Your task to perform on an android device: check data usage Image 0: 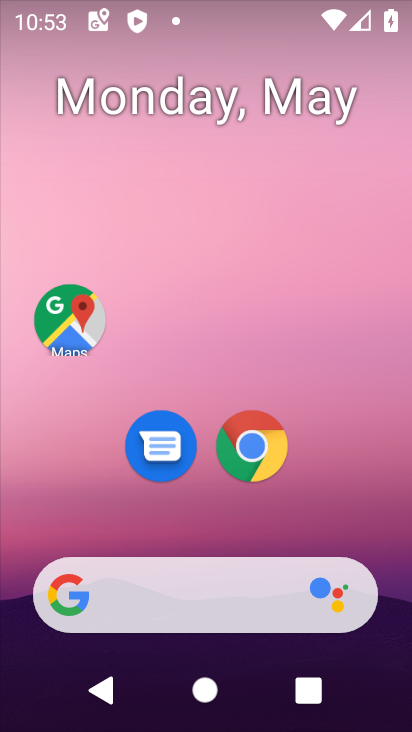
Step 0: click (265, 468)
Your task to perform on an android device: check data usage Image 1: 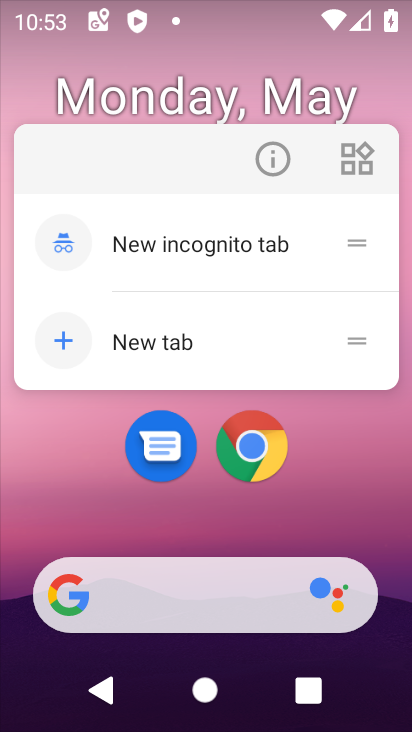
Step 1: click (265, 468)
Your task to perform on an android device: check data usage Image 2: 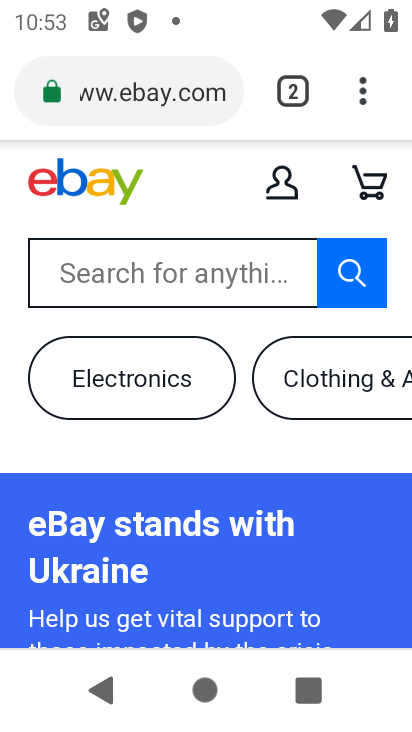
Step 2: press home button
Your task to perform on an android device: check data usage Image 3: 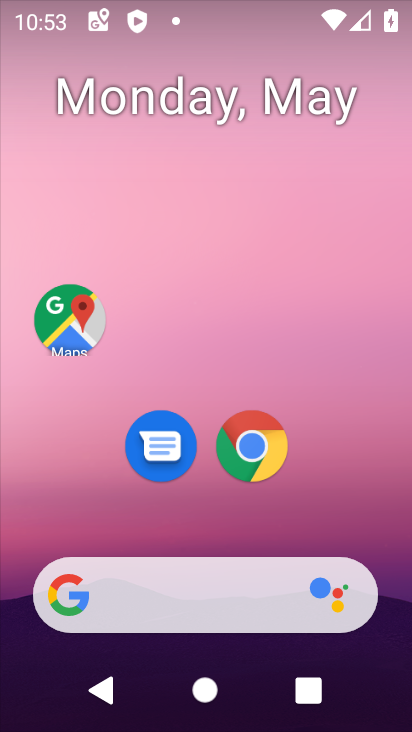
Step 3: drag from (341, 498) to (307, 22)
Your task to perform on an android device: check data usage Image 4: 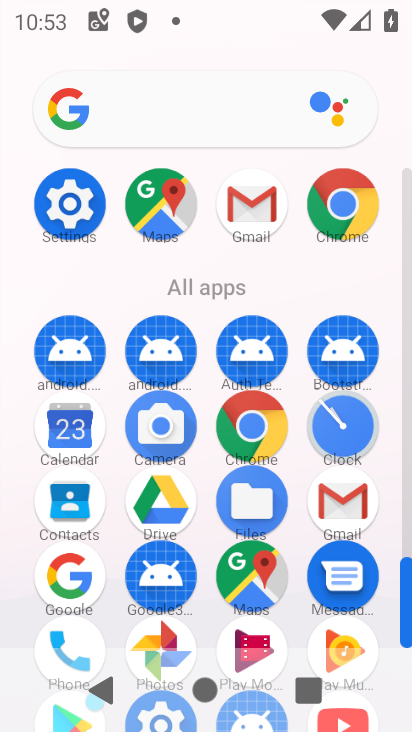
Step 4: click (44, 219)
Your task to perform on an android device: check data usage Image 5: 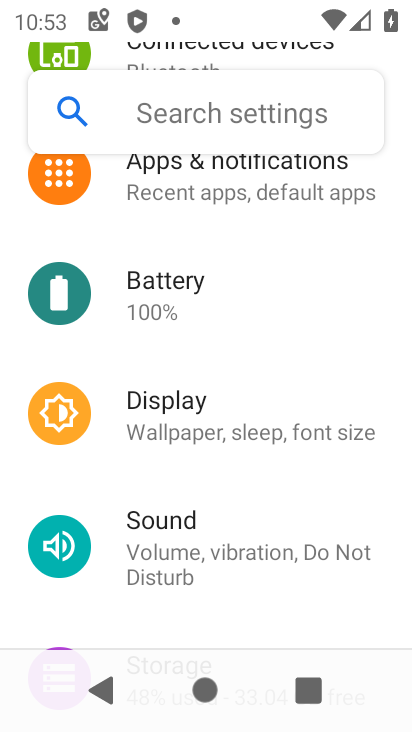
Step 5: drag from (197, 350) to (228, 593)
Your task to perform on an android device: check data usage Image 6: 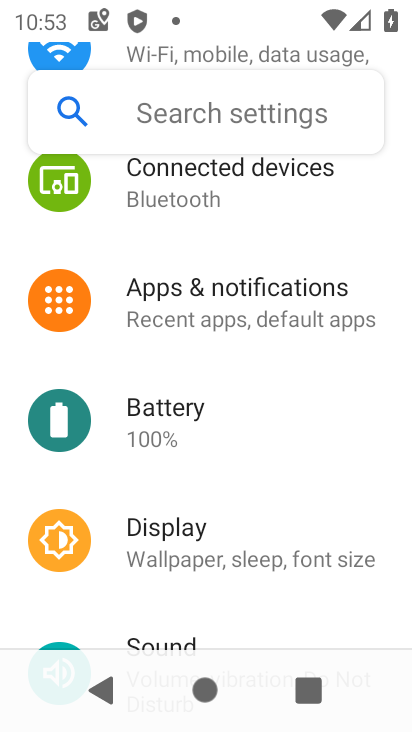
Step 6: drag from (254, 210) to (295, 528)
Your task to perform on an android device: check data usage Image 7: 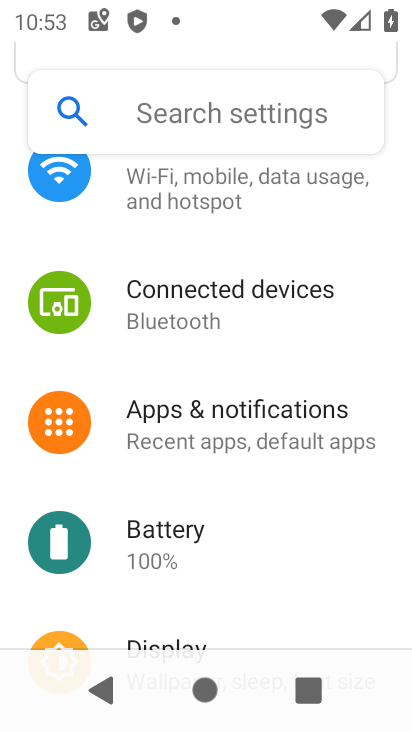
Step 7: drag from (254, 241) to (261, 566)
Your task to perform on an android device: check data usage Image 8: 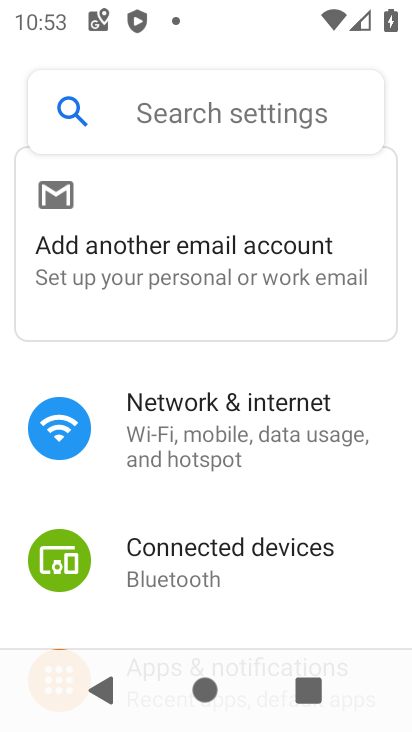
Step 8: click (245, 405)
Your task to perform on an android device: check data usage Image 9: 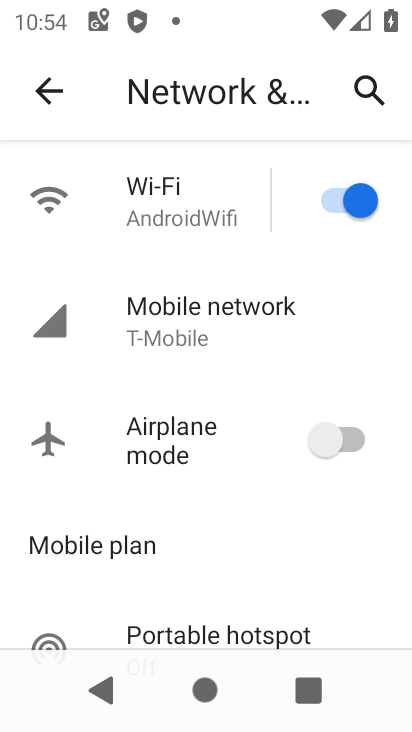
Step 9: click (178, 329)
Your task to perform on an android device: check data usage Image 10: 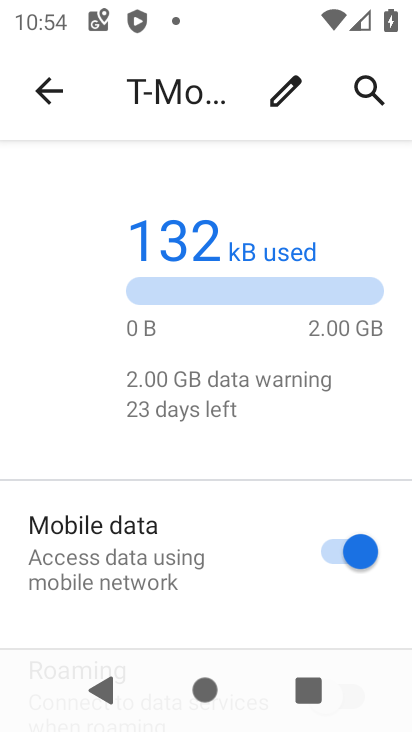
Step 10: task complete